Your task to perform on an android device: turn on translation in the chrome app Image 0: 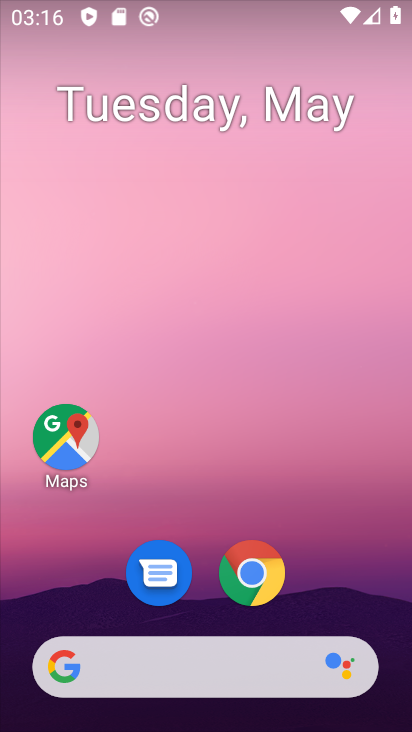
Step 0: click (250, 577)
Your task to perform on an android device: turn on translation in the chrome app Image 1: 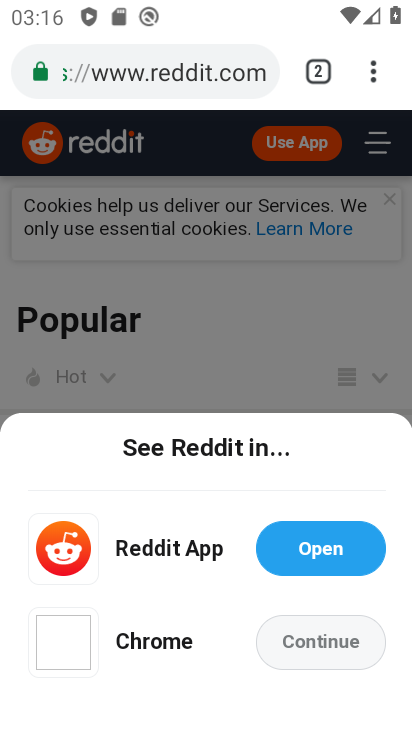
Step 1: drag from (374, 57) to (166, 572)
Your task to perform on an android device: turn on translation in the chrome app Image 2: 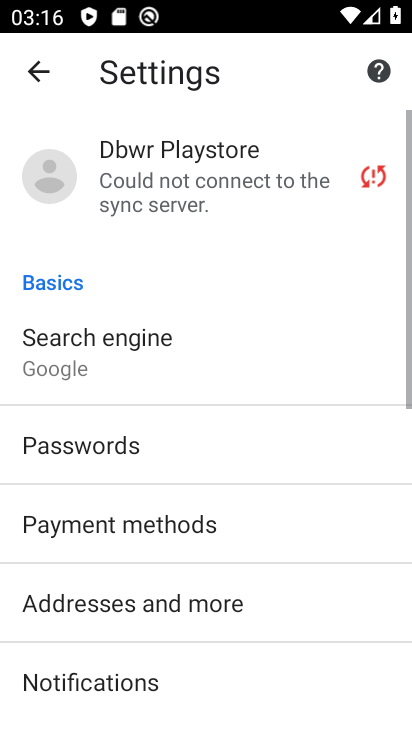
Step 2: drag from (142, 647) to (262, 167)
Your task to perform on an android device: turn on translation in the chrome app Image 3: 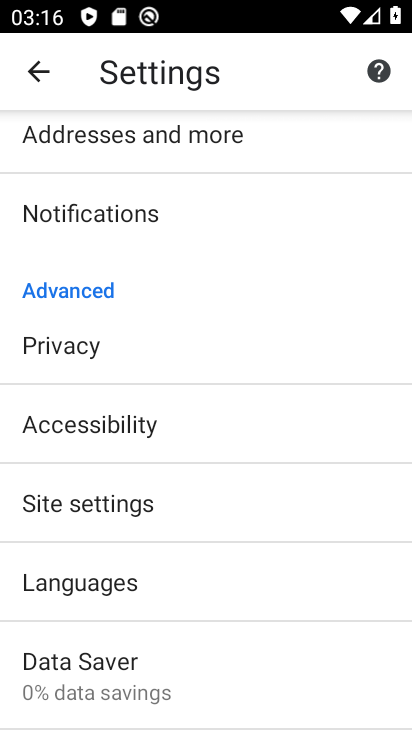
Step 3: click (82, 585)
Your task to perform on an android device: turn on translation in the chrome app Image 4: 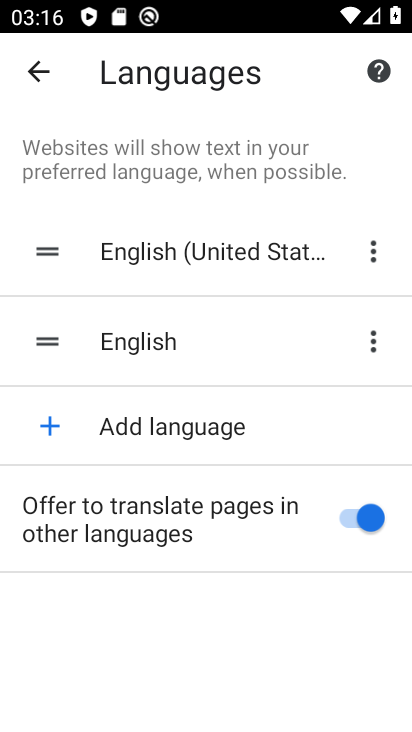
Step 4: task complete